Your task to perform on an android device: allow notifications from all sites in the chrome app Image 0: 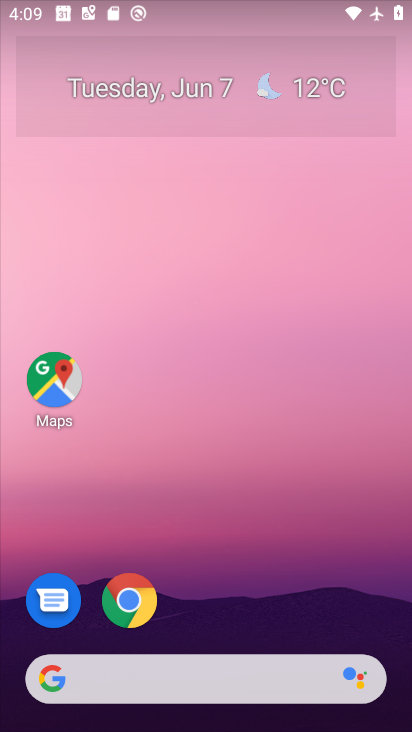
Step 0: drag from (289, 482) to (269, 134)
Your task to perform on an android device: allow notifications from all sites in the chrome app Image 1: 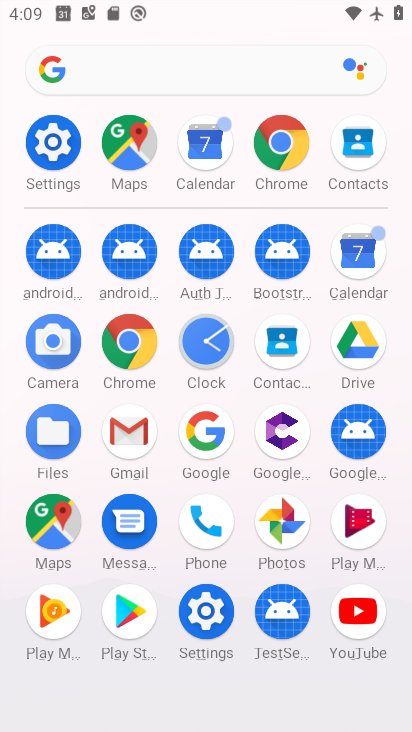
Step 1: click (131, 346)
Your task to perform on an android device: allow notifications from all sites in the chrome app Image 2: 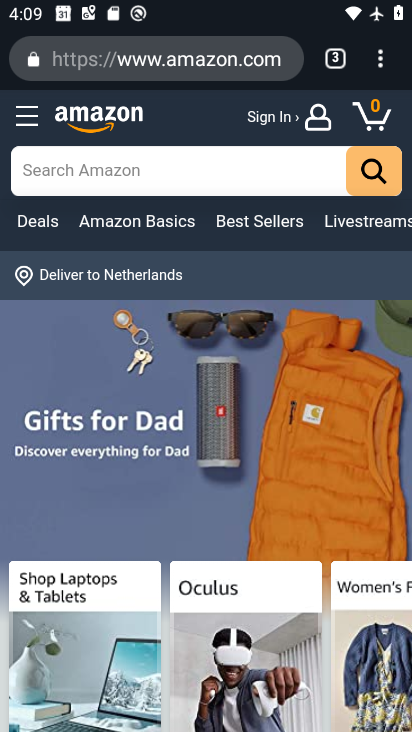
Step 2: drag from (382, 57) to (210, 635)
Your task to perform on an android device: allow notifications from all sites in the chrome app Image 3: 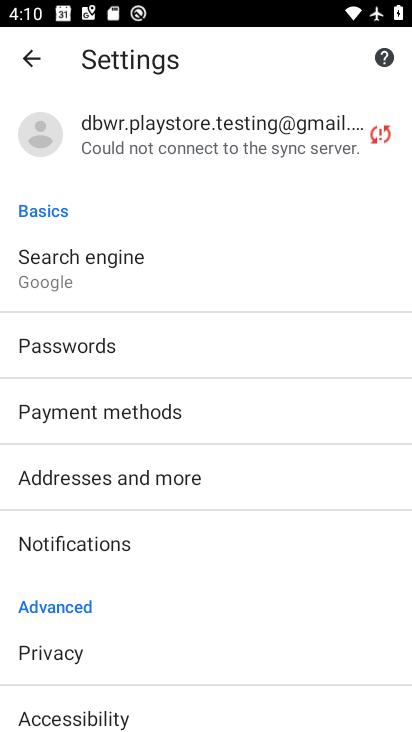
Step 3: drag from (135, 607) to (296, 256)
Your task to perform on an android device: allow notifications from all sites in the chrome app Image 4: 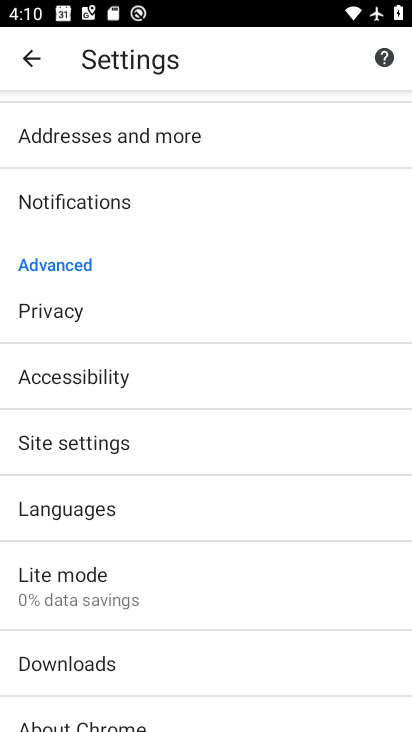
Step 4: click (94, 442)
Your task to perform on an android device: allow notifications from all sites in the chrome app Image 5: 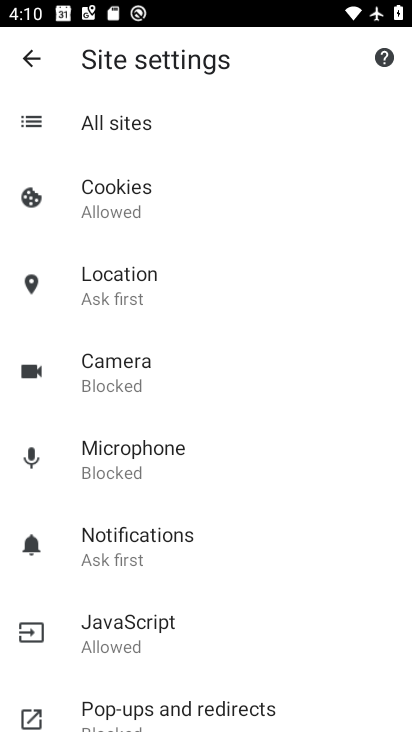
Step 5: click (124, 529)
Your task to perform on an android device: allow notifications from all sites in the chrome app Image 6: 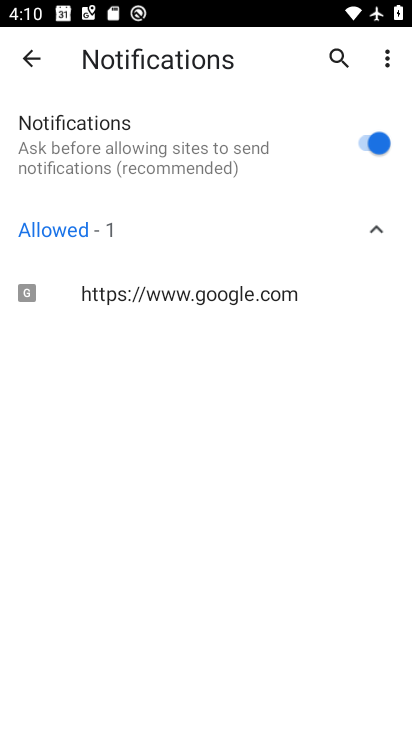
Step 6: task complete